Your task to perform on an android device: toggle notifications settings in the gmail app Image 0: 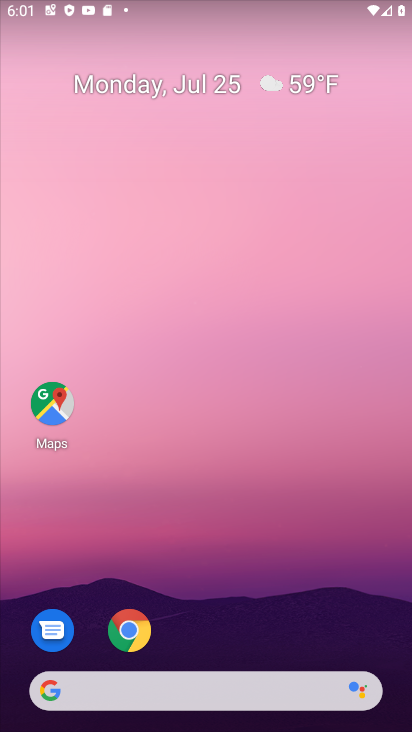
Step 0: drag from (203, 636) to (225, 202)
Your task to perform on an android device: toggle notifications settings in the gmail app Image 1: 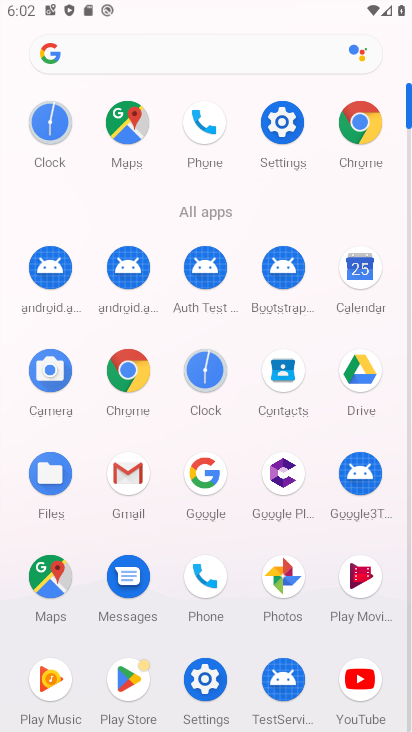
Step 1: click (283, 108)
Your task to perform on an android device: toggle notifications settings in the gmail app Image 2: 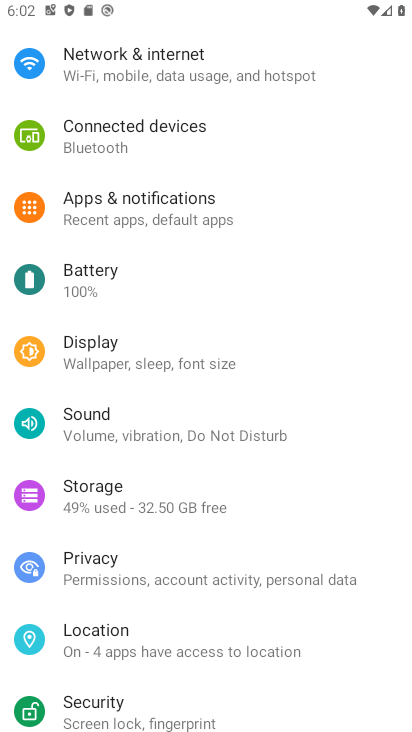
Step 2: click (178, 210)
Your task to perform on an android device: toggle notifications settings in the gmail app Image 3: 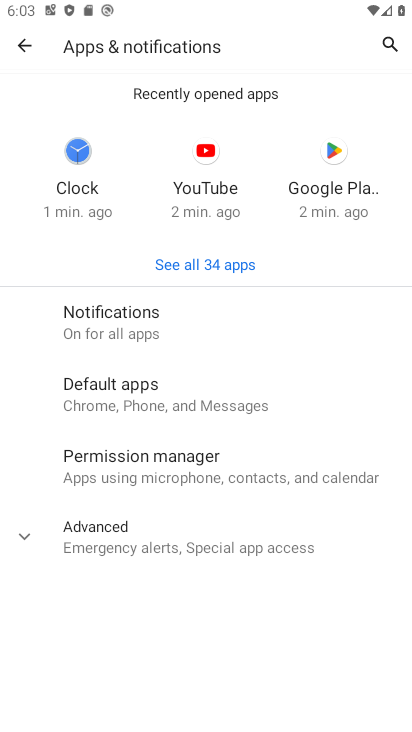
Step 3: click (128, 323)
Your task to perform on an android device: toggle notifications settings in the gmail app Image 4: 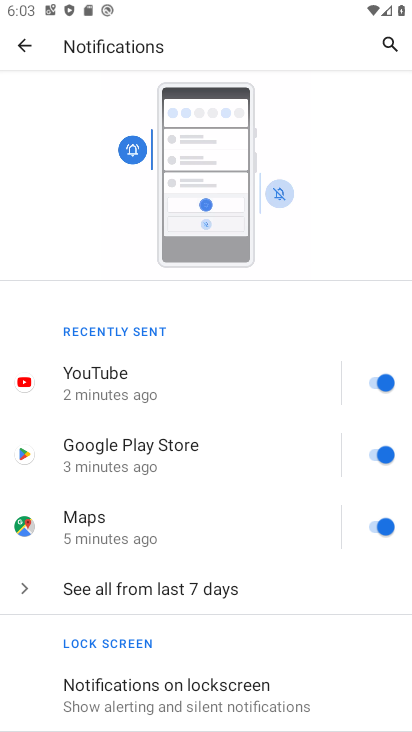
Step 4: drag from (234, 533) to (268, 314)
Your task to perform on an android device: toggle notifications settings in the gmail app Image 5: 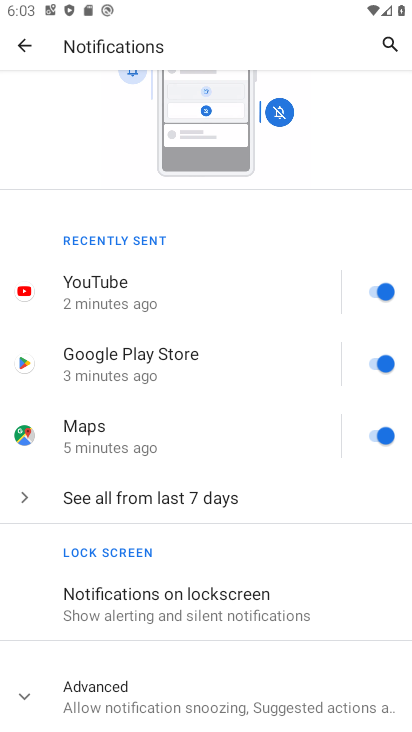
Step 5: click (129, 695)
Your task to perform on an android device: toggle notifications settings in the gmail app Image 6: 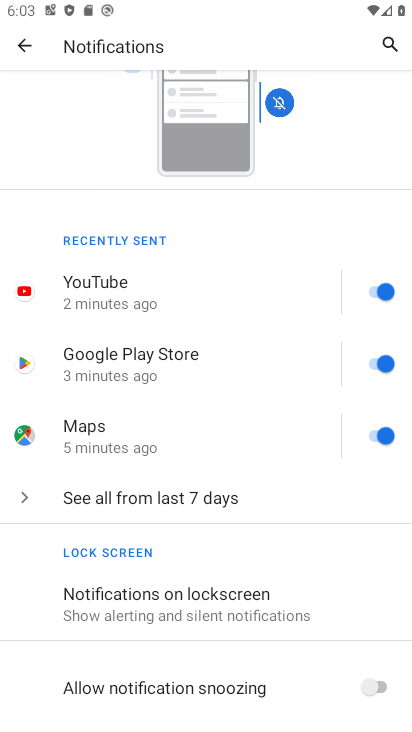
Step 6: drag from (178, 626) to (217, 321)
Your task to perform on an android device: toggle notifications settings in the gmail app Image 7: 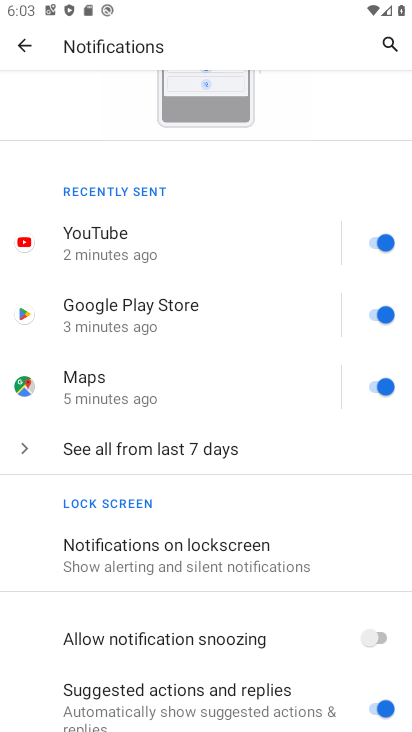
Step 7: drag from (299, 622) to (323, 423)
Your task to perform on an android device: toggle notifications settings in the gmail app Image 8: 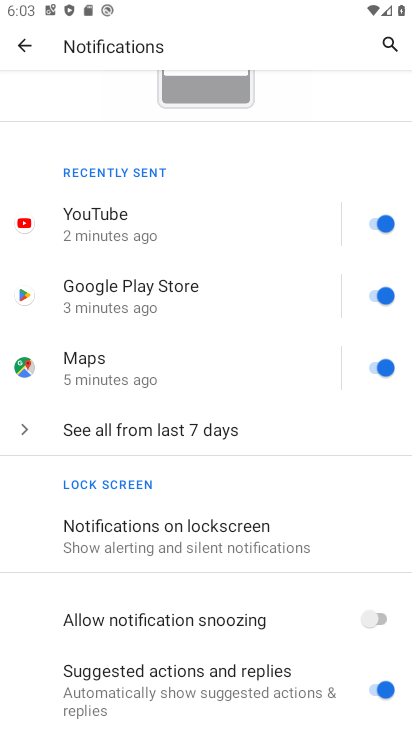
Step 8: click (250, 516)
Your task to perform on an android device: toggle notifications settings in the gmail app Image 9: 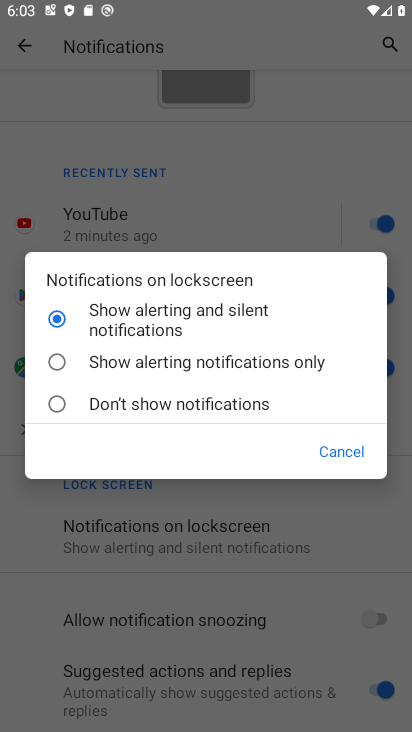
Step 9: click (53, 412)
Your task to perform on an android device: toggle notifications settings in the gmail app Image 10: 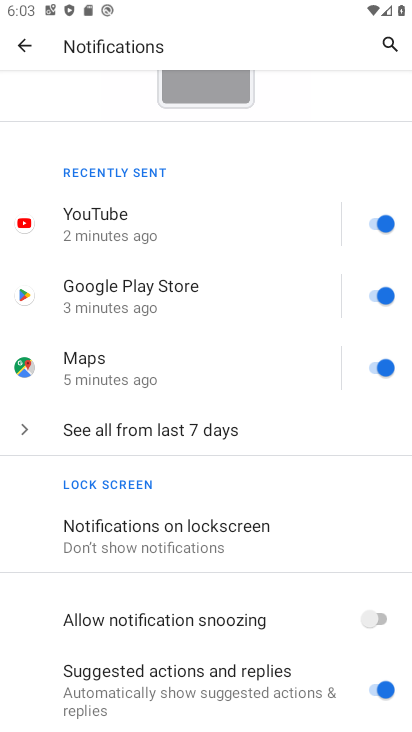
Step 10: task complete